Your task to perform on an android device: open app "Skype" (install if not already installed) Image 0: 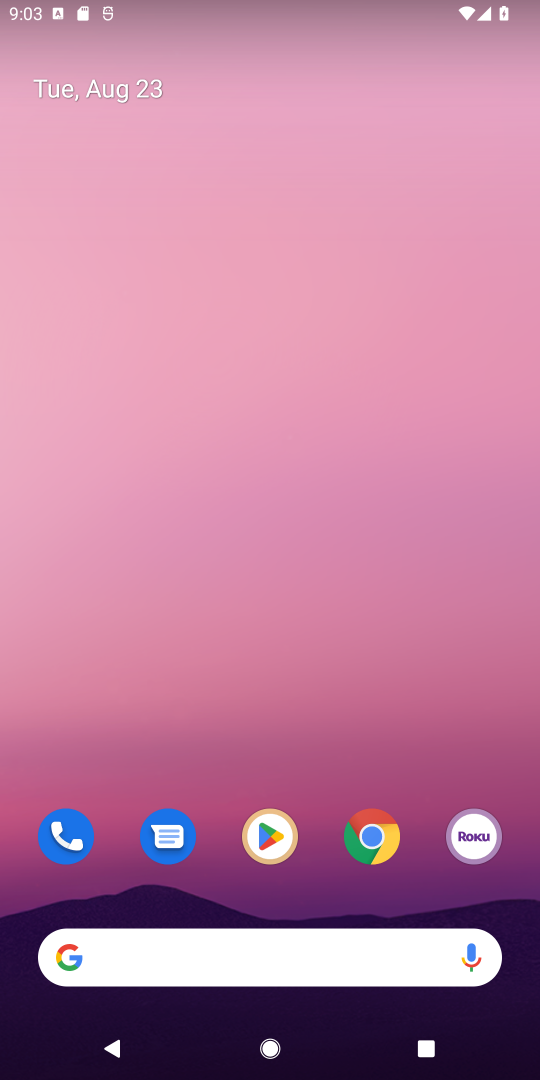
Step 0: click (258, 838)
Your task to perform on an android device: open app "Skype" (install if not already installed) Image 1: 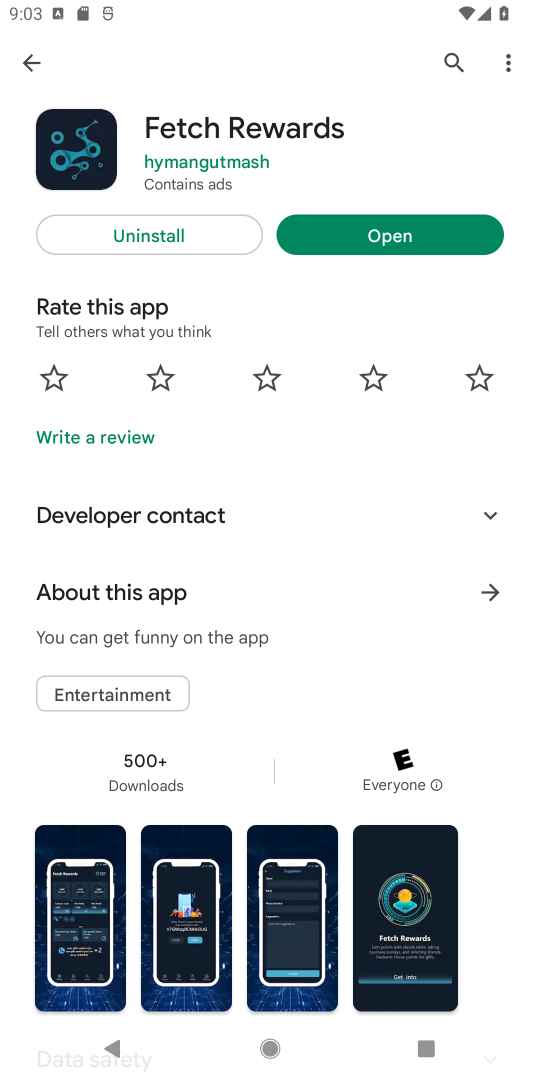
Step 1: click (451, 49)
Your task to perform on an android device: open app "Skype" (install if not already installed) Image 2: 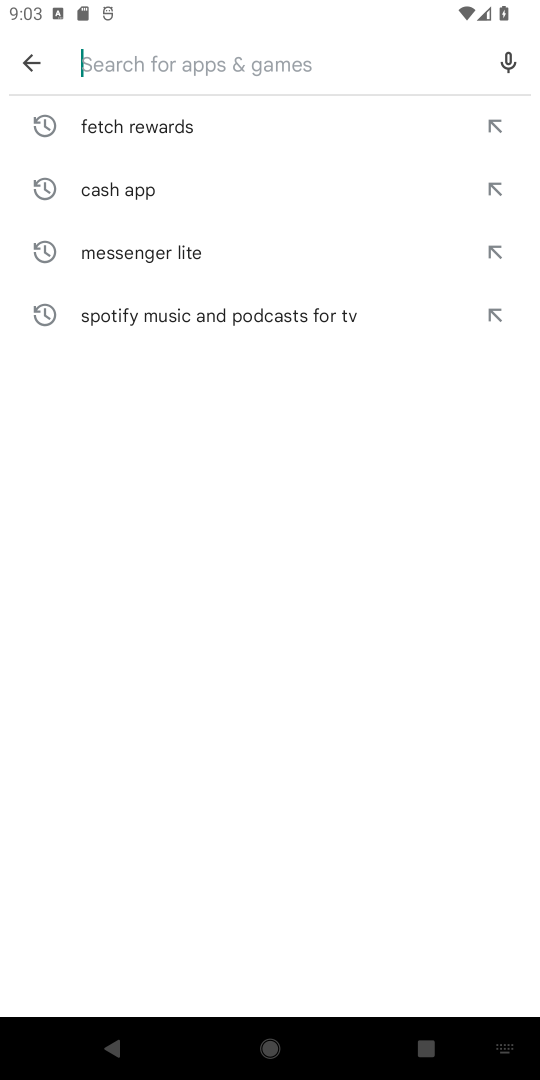
Step 2: type "Skype"
Your task to perform on an android device: open app "Skype" (install if not already installed) Image 3: 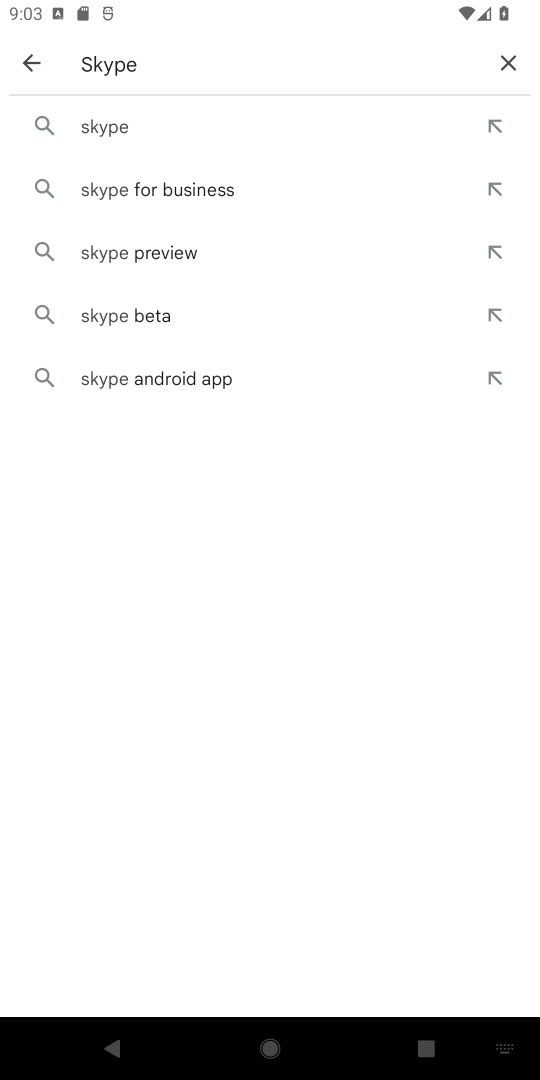
Step 3: click (104, 125)
Your task to perform on an android device: open app "Skype" (install if not already installed) Image 4: 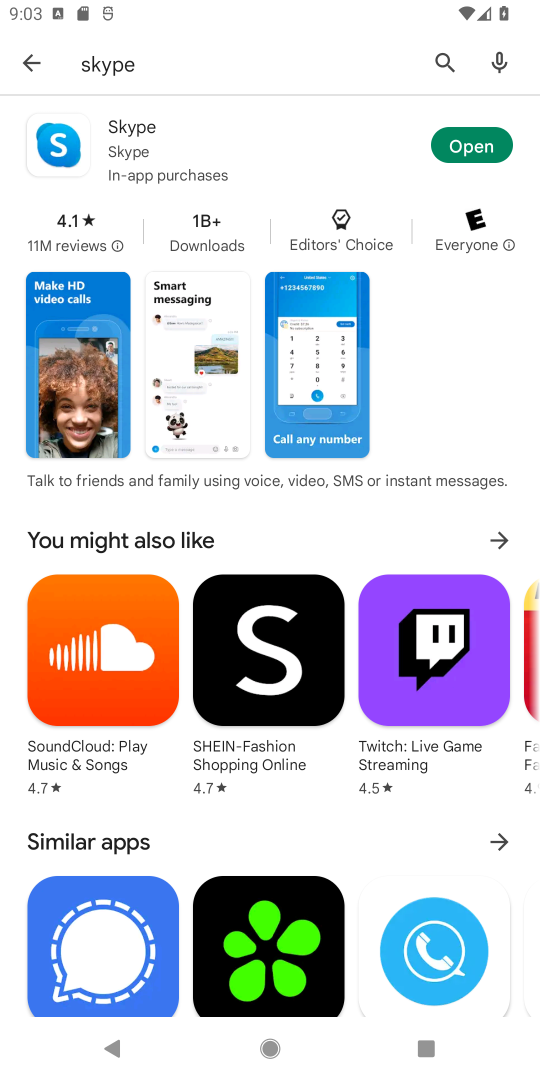
Step 4: click (487, 139)
Your task to perform on an android device: open app "Skype" (install if not already installed) Image 5: 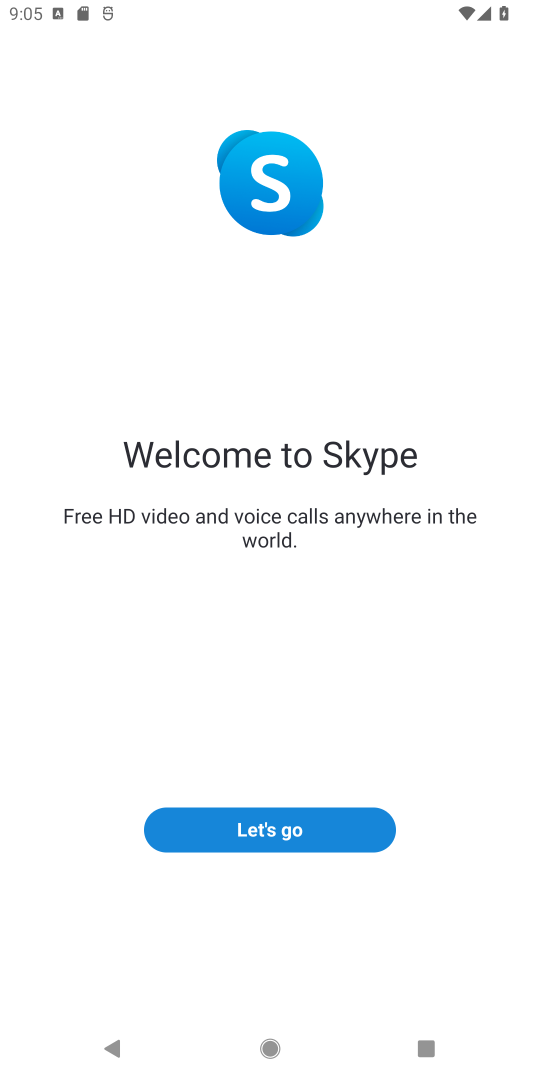
Step 5: task complete